Your task to perform on an android device: Search for vegetarian restaurants on Maps Image 0: 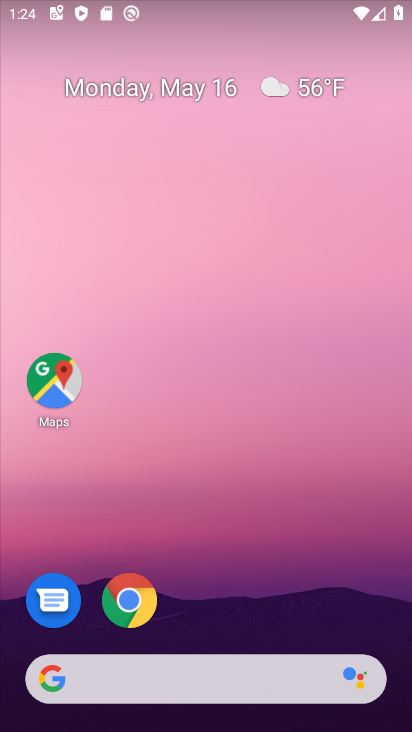
Step 0: click (52, 386)
Your task to perform on an android device: Search for vegetarian restaurants on Maps Image 1: 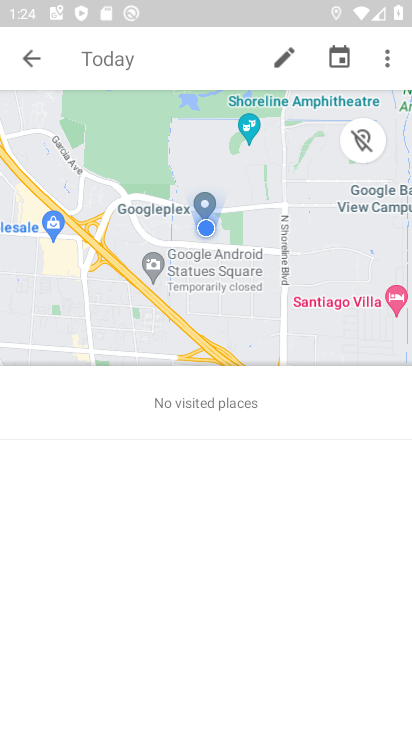
Step 1: click (40, 73)
Your task to perform on an android device: Search for vegetarian restaurants on Maps Image 2: 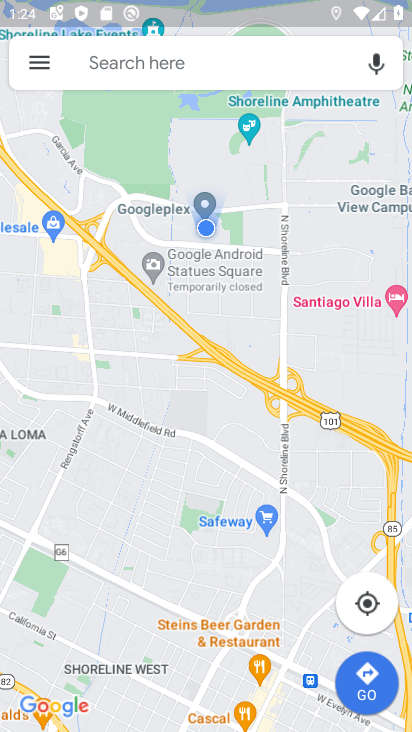
Step 2: click (223, 75)
Your task to perform on an android device: Search for vegetarian restaurants on Maps Image 3: 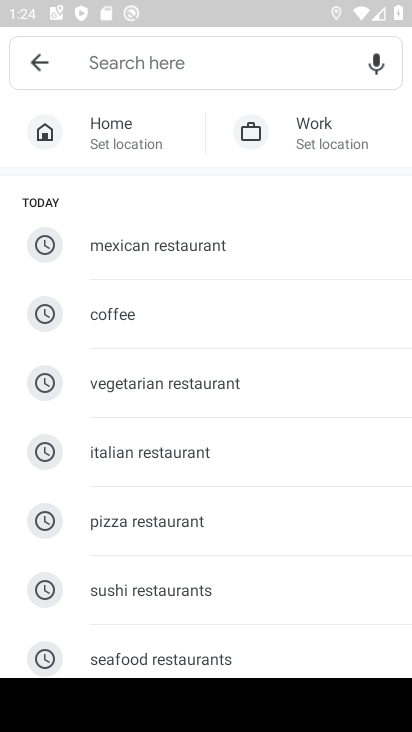
Step 3: click (219, 398)
Your task to perform on an android device: Search for vegetarian restaurants on Maps Image 4: 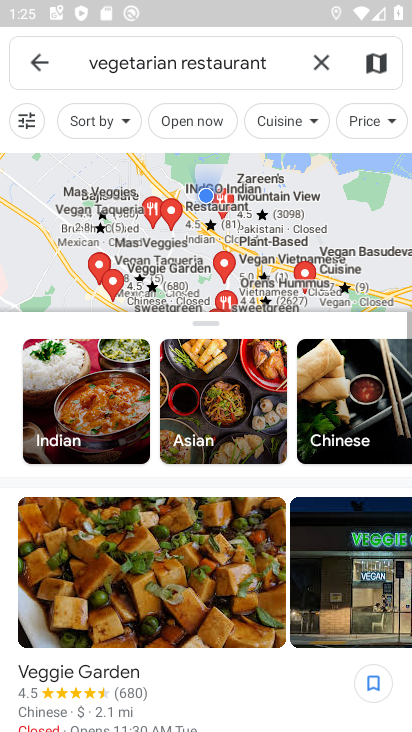
Step 4: task complete